Your task to perform on an android device: Open Google Chrome and open the bookmarks view Image 0: 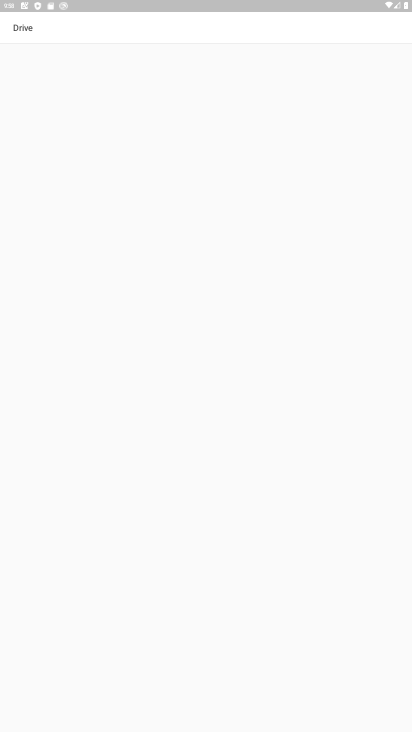
Step 0: press home button
Your task to perform on an android device: Open Google Chrome and open the bookmarks view Image 1: 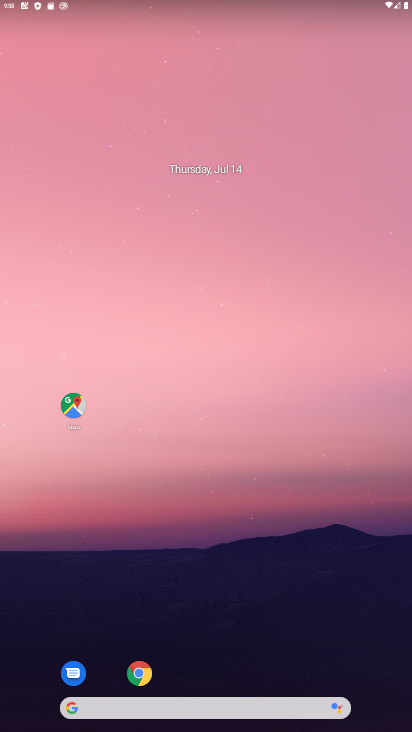
Step 1: click (135, 669)
Your task to perform on an android device: Open Google Chrome and open the bookmarks view Image 2: 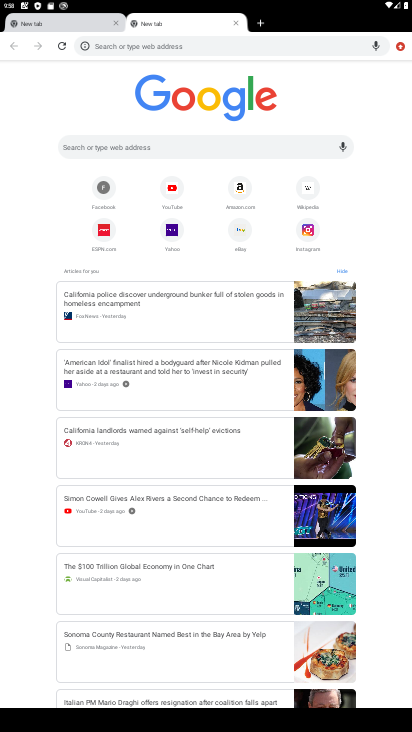
Step 2: task complete